Your task to perform on an android device: Open Google Chrome and open the bookmarks view Image 0: 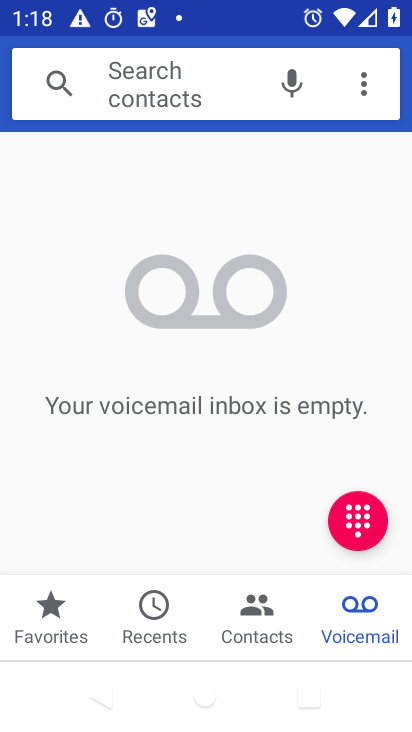
Step 0: press back button
Your task to perform on an android device: Open Google Chrome and open the bookmarks view Image 1: 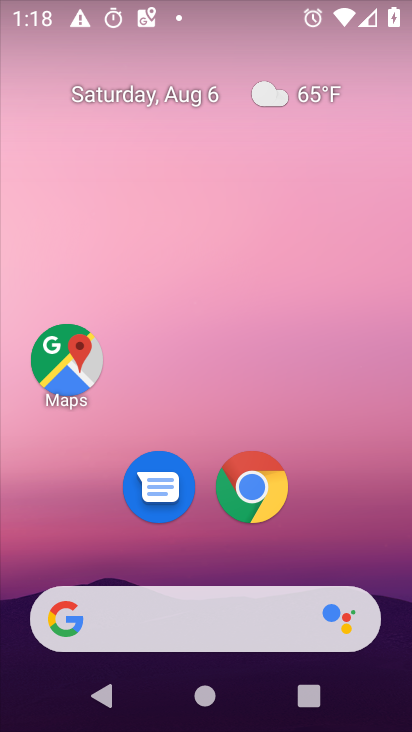
Step 1: click (260, 487)
Your task to perform on an android device: Open Google Chrome and open the bookmarks view Image 2: 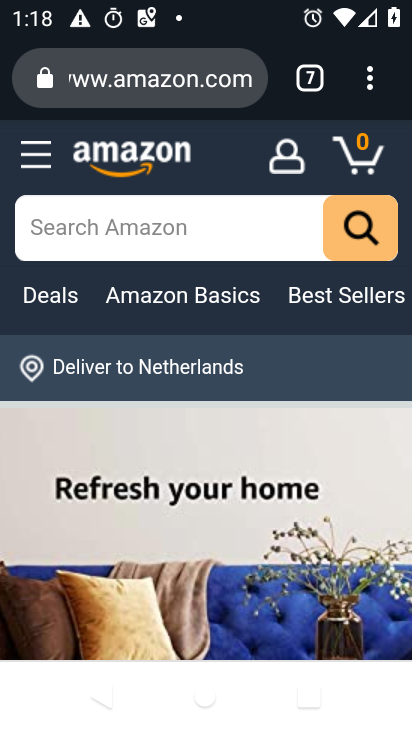
Step 2: task complete